Your task to perform on an android device: Open Chrome and go to the settings page Image 0: 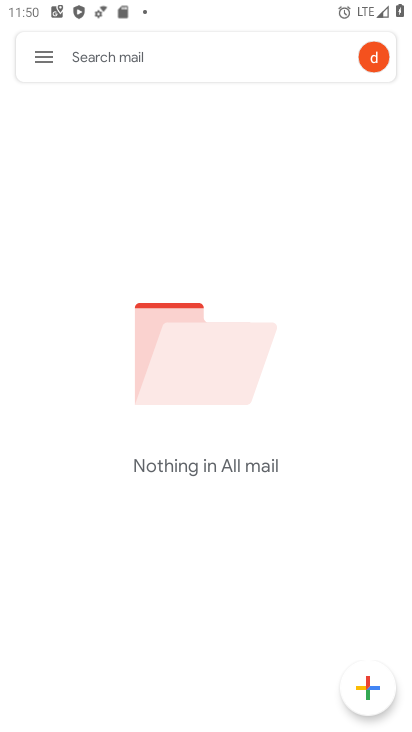
Step 0: press home button
Your task to perform on an android device: Open Chrome and go to the settings page Image 1: 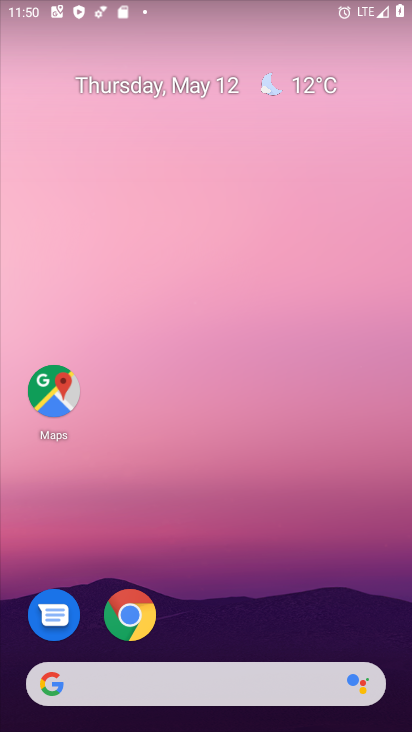
Step 1: click (125, 612)
Your task to perform on an android device: Open Chrome and go to the settings page Image 2: 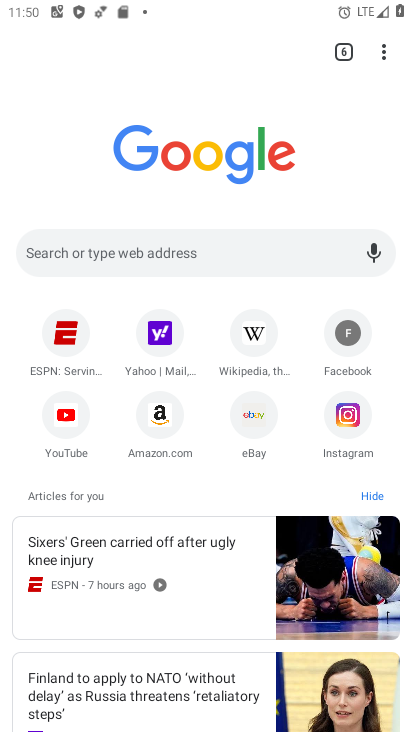
Step 2: click (379, 48)
Your task to perform on an android device: Open Chrome and go to the settings page Image 3: 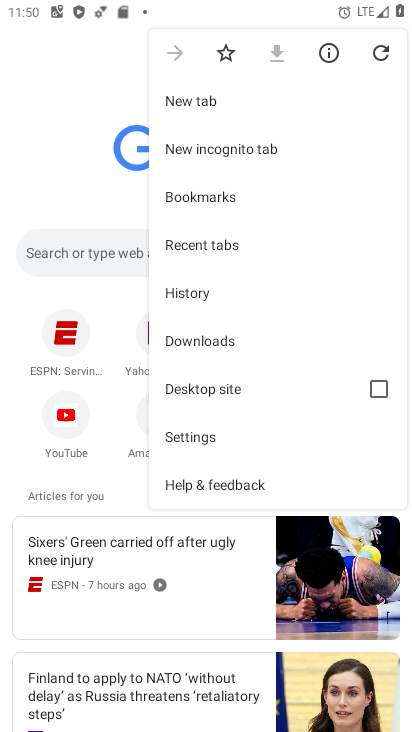
Step 3: click (244, 442)
Your task to perform on an android device: Open Chrome and go to the settings page Image 4: 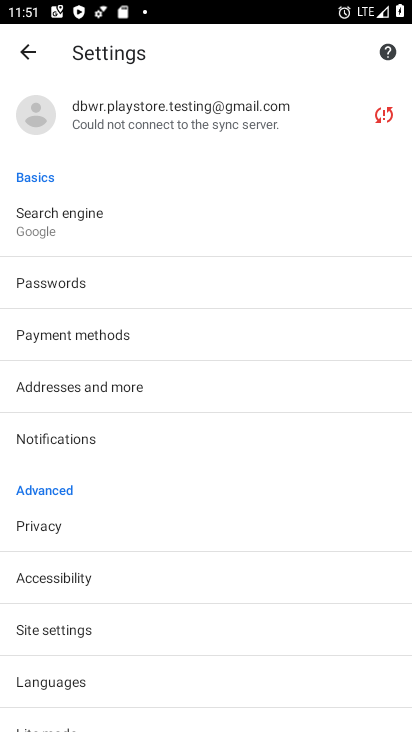
Step 4: task complete